Your task to perform on an android device: Toggle the flashlight Image 0: 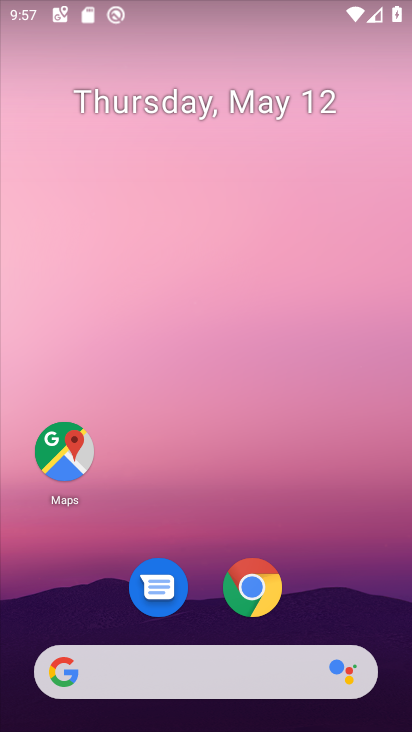
Step 0: drag from (380, 606) to (329, 80)
Your task to perform on an android device: Toggle the flashlight Image 1: 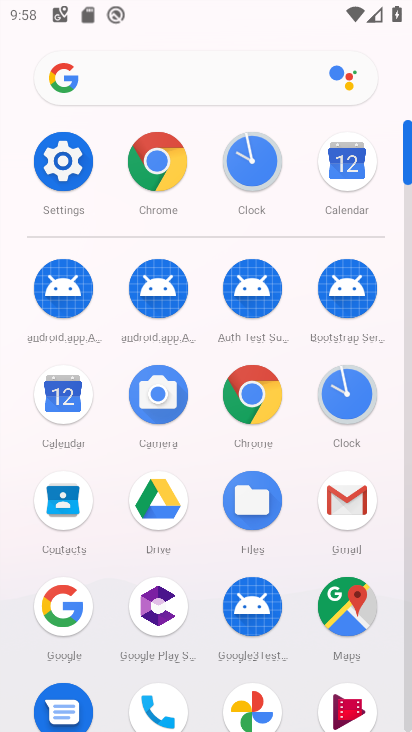
Step 1: click (80, 145)
Your task to perform on an android device: Toggle the flashlight Image 2: 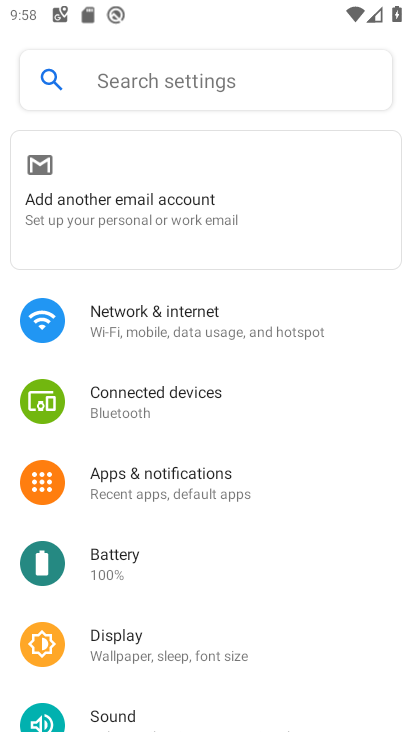
Step 2: task complete